Your task to perform on an android device: turn pop-ups off in chrome Image 0: 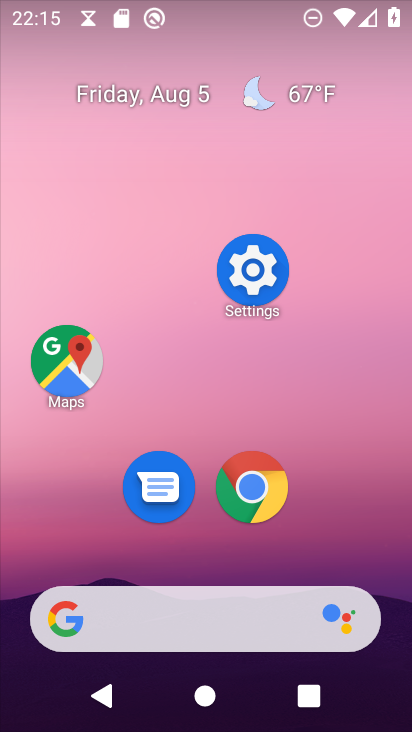
Step 0: press home button
Your task to perform on an android device: turn pop-ups off in chrome Image 1: 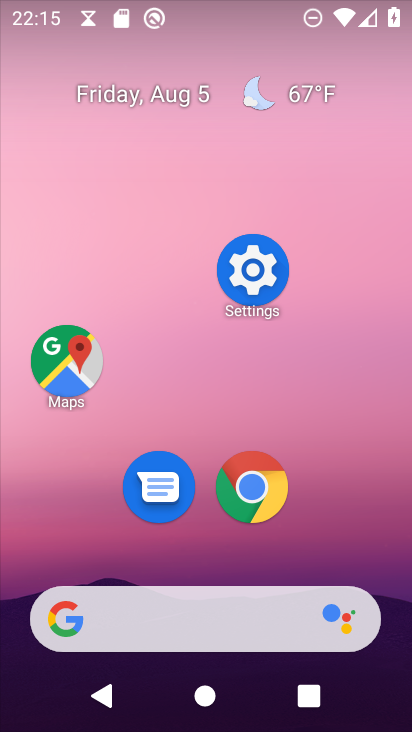
Step 1: click (264, 485)
Your task to perform on an android device: turn pop-ups off in chrome Image 2: 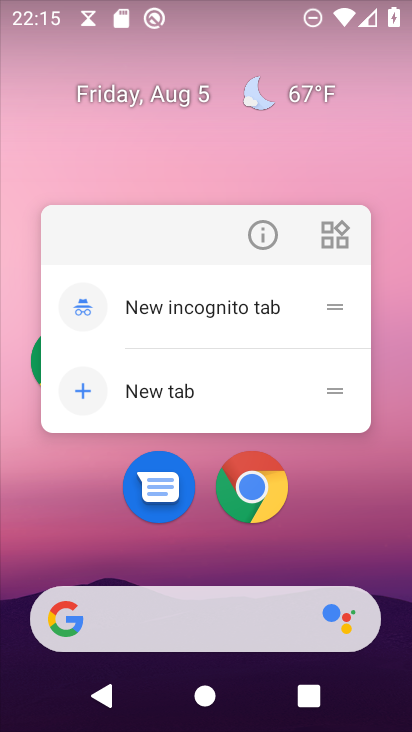
Step 2: click (264, 488)
Your task to perform on an android device: turn pop-ups off in chrome Image 3: 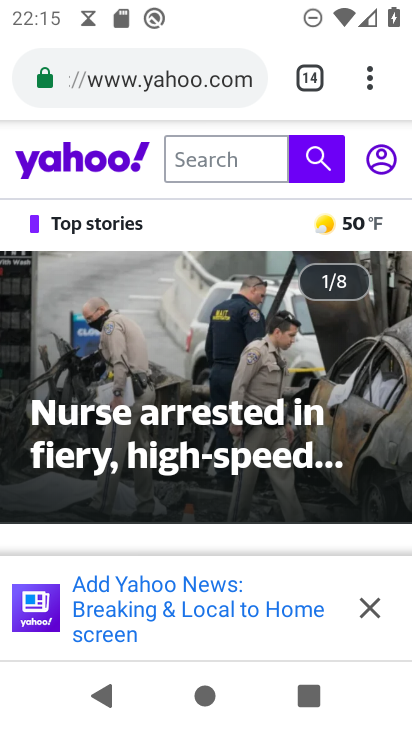
Step 3: drag from (368, 80) to (154, 556)
Your task to perform on an android device: turn pop-ups off in chrome Image 4: 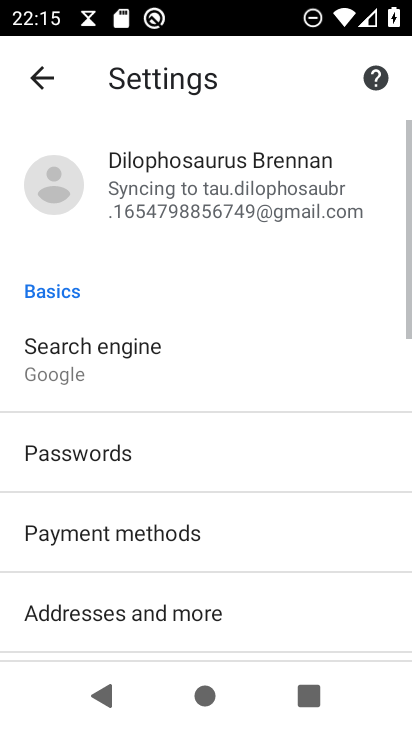
Step 4: drag from (228, 592) to (325, 162)
Your task to perform on an android device: turn pop-ups off in chrome Image 5: 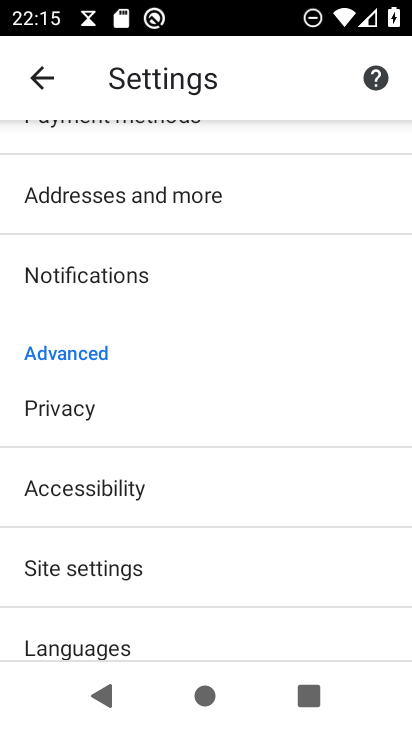
Step 5: click (119, 569)
Your task to perform on an android device: turn pop-ups off in chrome Image 6: 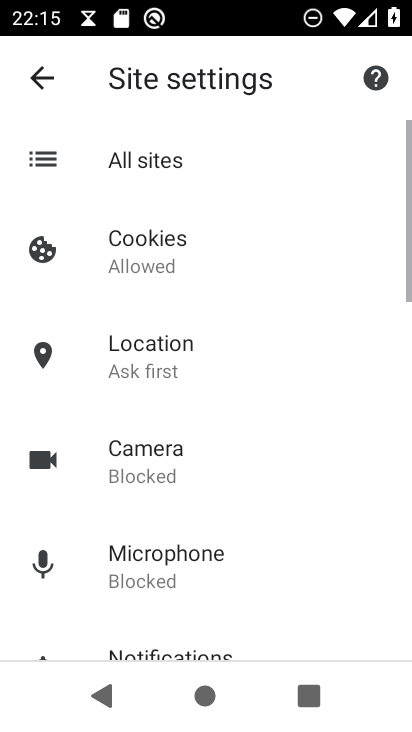
Step 6: drag from (283, 459) to (339, 108)
Your task to perform on an android device: turn pop-ups off in chrome Image 7: 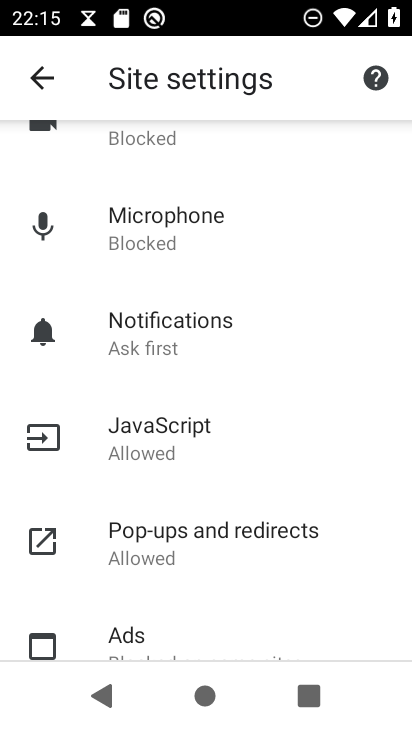
Step 7: click (166, 530)
Your task to perform on an android device: turn pop-ups off in chrome Image 8: 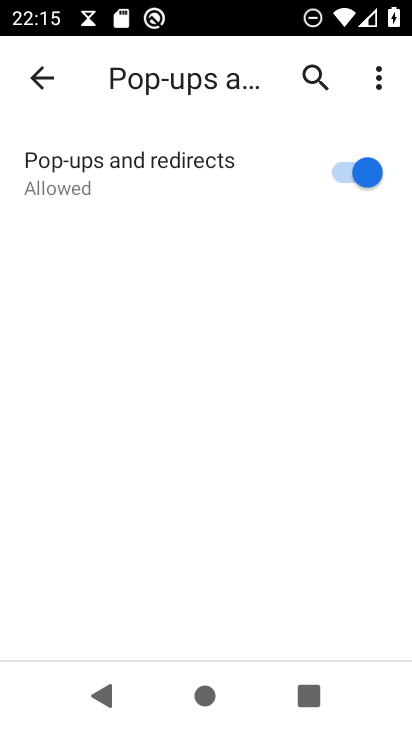
Step 8: click (347, 171)
Your task to perform on an android device: turn pop-ups off in chrome Image 9: 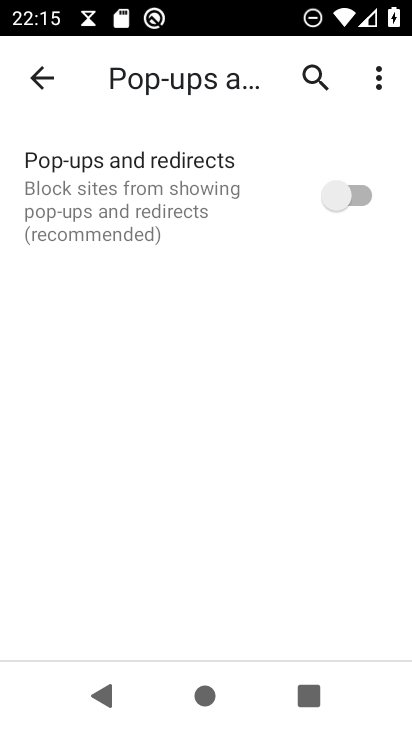
Step 9: task complete